Your task to perform on an android device: Go to Amazon Image 0: 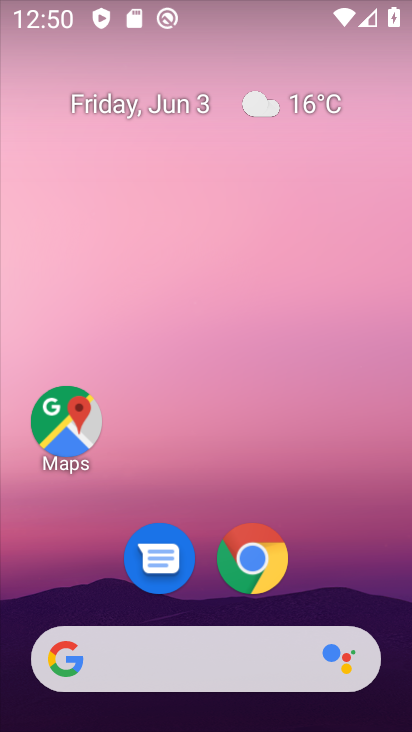
Step 0: drag from (363, 593) to (355, 278)
Your task to perform on an android device: Go to Amazon Image 1: 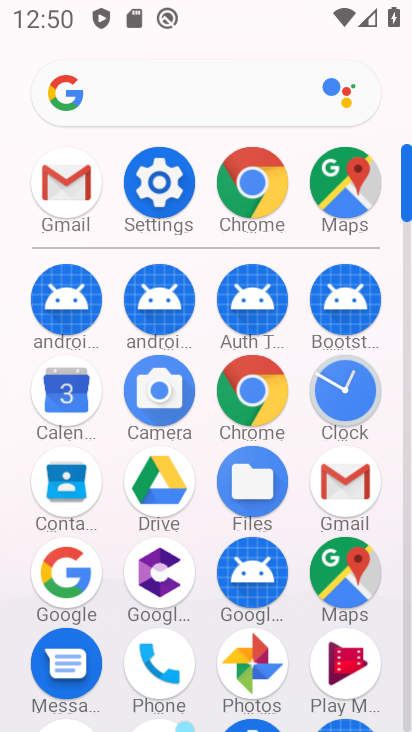
Step 1: click (269, 391)
Your task to perform on an android device: Go to Amazon Image 2: 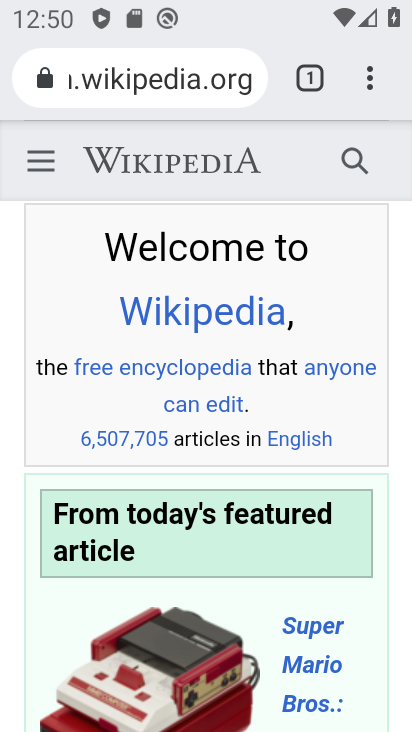
Step 2: click (219, 94)
Your task to perform on an android device: Go to Amazon Image 3: 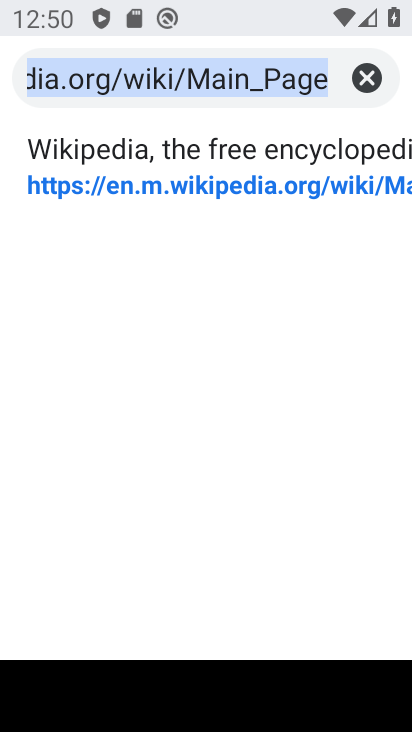
Step 3: click (362, 83)
Your task to perform on an android device: Go to Amazon Image 4: 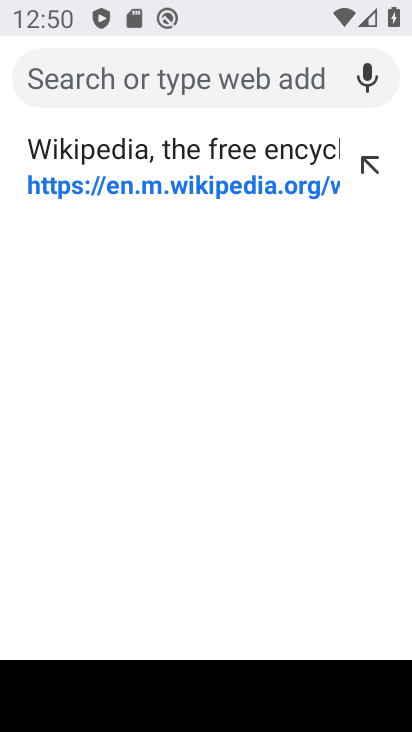
Step 4: type "amazon"
Your task to perform on an android device: Go to Amazon Image 5: 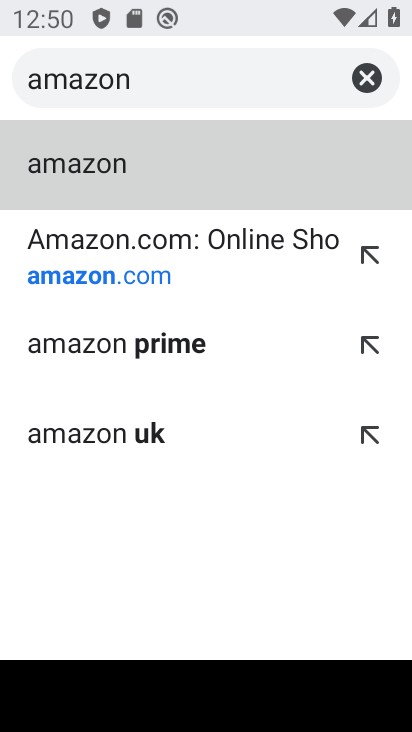
Step 5: click (237, 174)
Your task to perform on an android device: Go to Amazon Image 6: 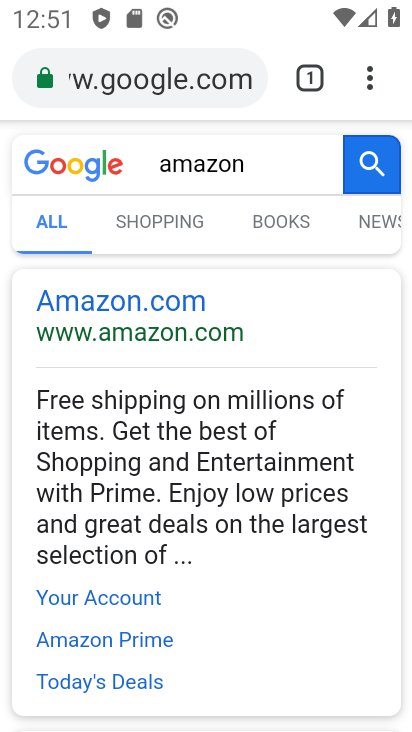
Step 6: task complete